Your task to perform on an android device: toggle notification dots Image 0: 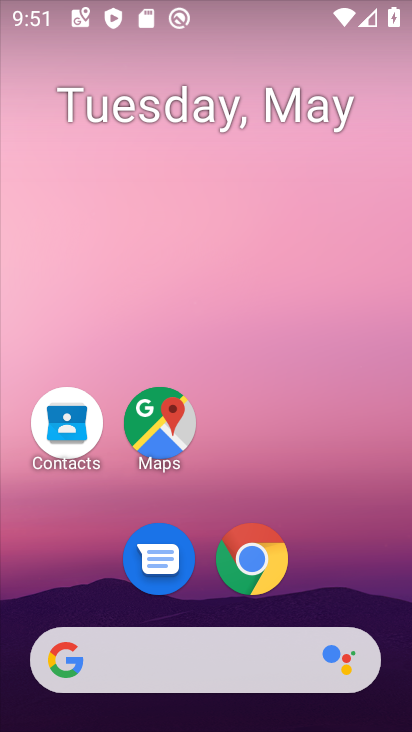
Step 0: drag from (348, 591) to (282, 159)
Your task to perform on an android device: toggle notification dots Image 1: 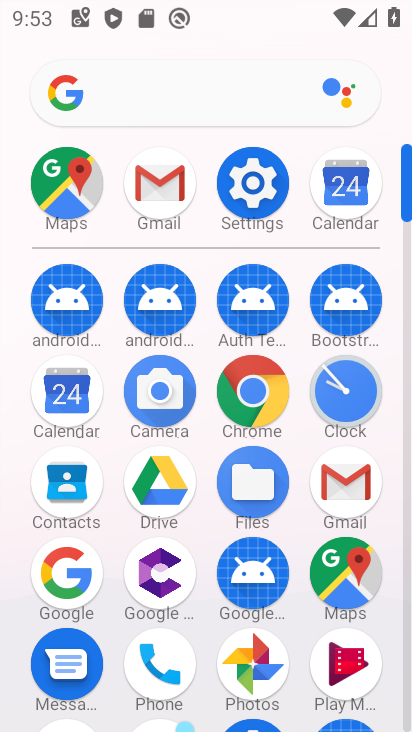
Step 1: click (250, 217)
Your task to perform on an android device: toggle notification dots Image 2: 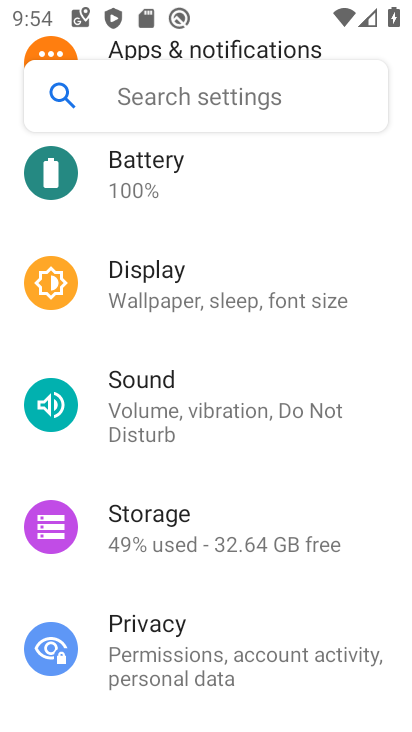
Step 2: task complete